Your task to perform on an android device: install app "LinkedIn" Image 0: 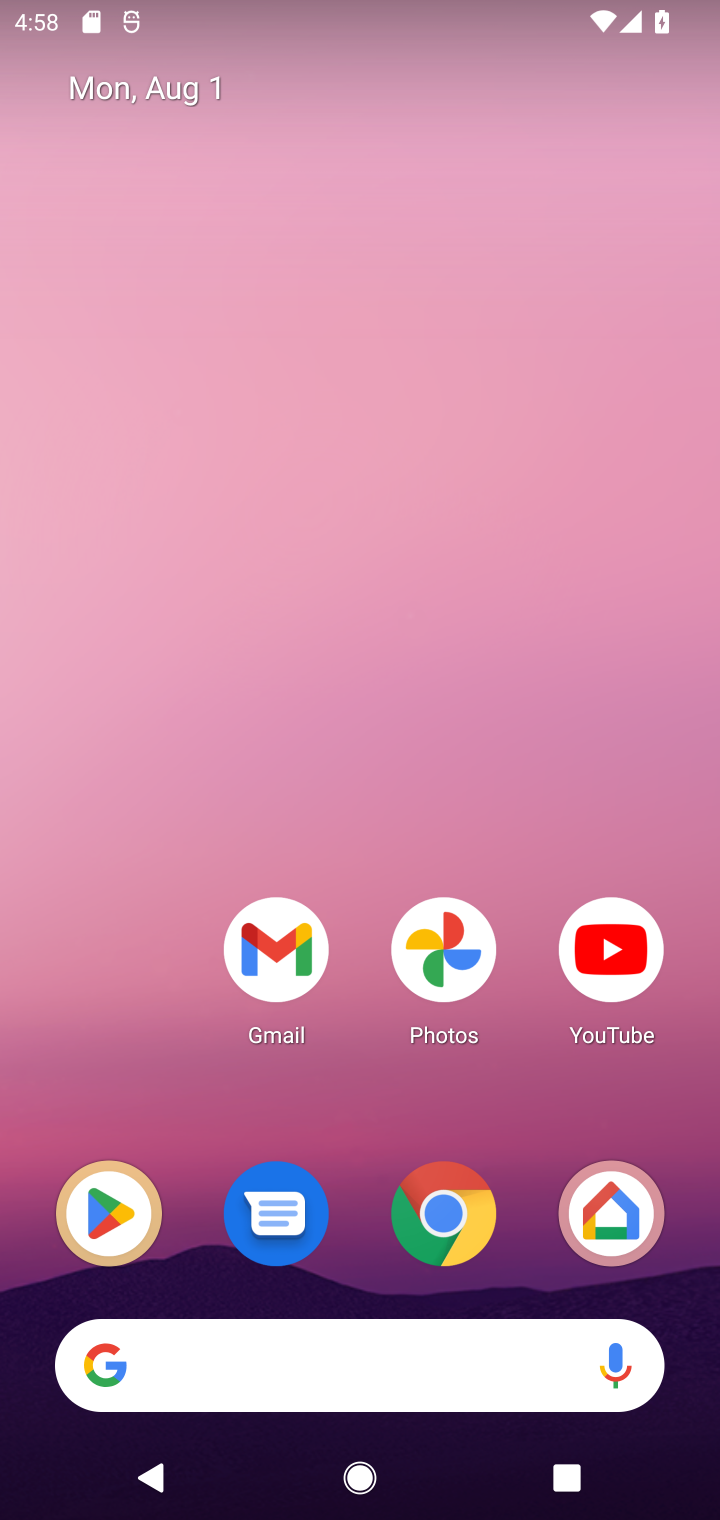
Step 0: drag from (507, 1096) to (351, 48)
Your task to perform on an android device: install app "LinkedIn" Image 1: 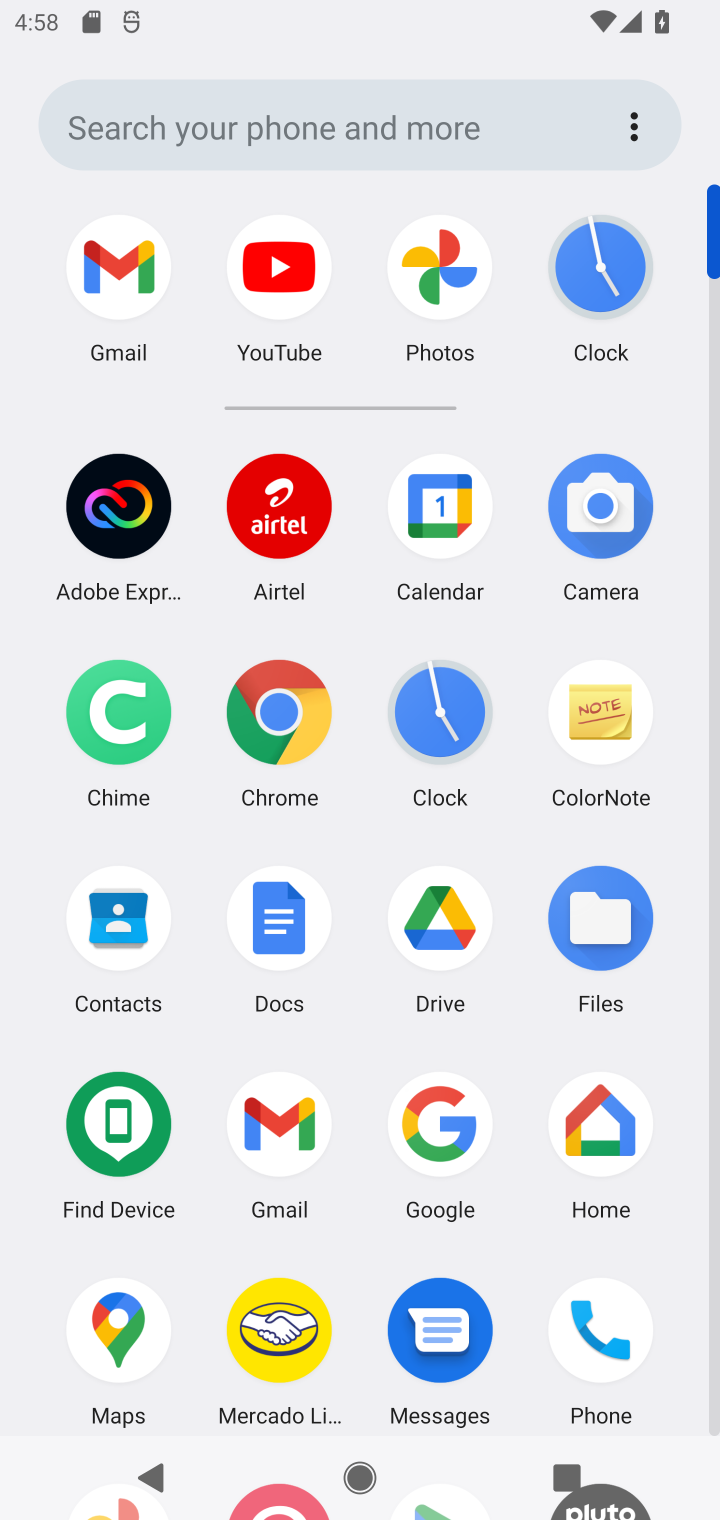
Step 1: drag from (516, 1255) to (504, 439)
Your task to perform on an android device: install app "LinkedIn" Image 2: 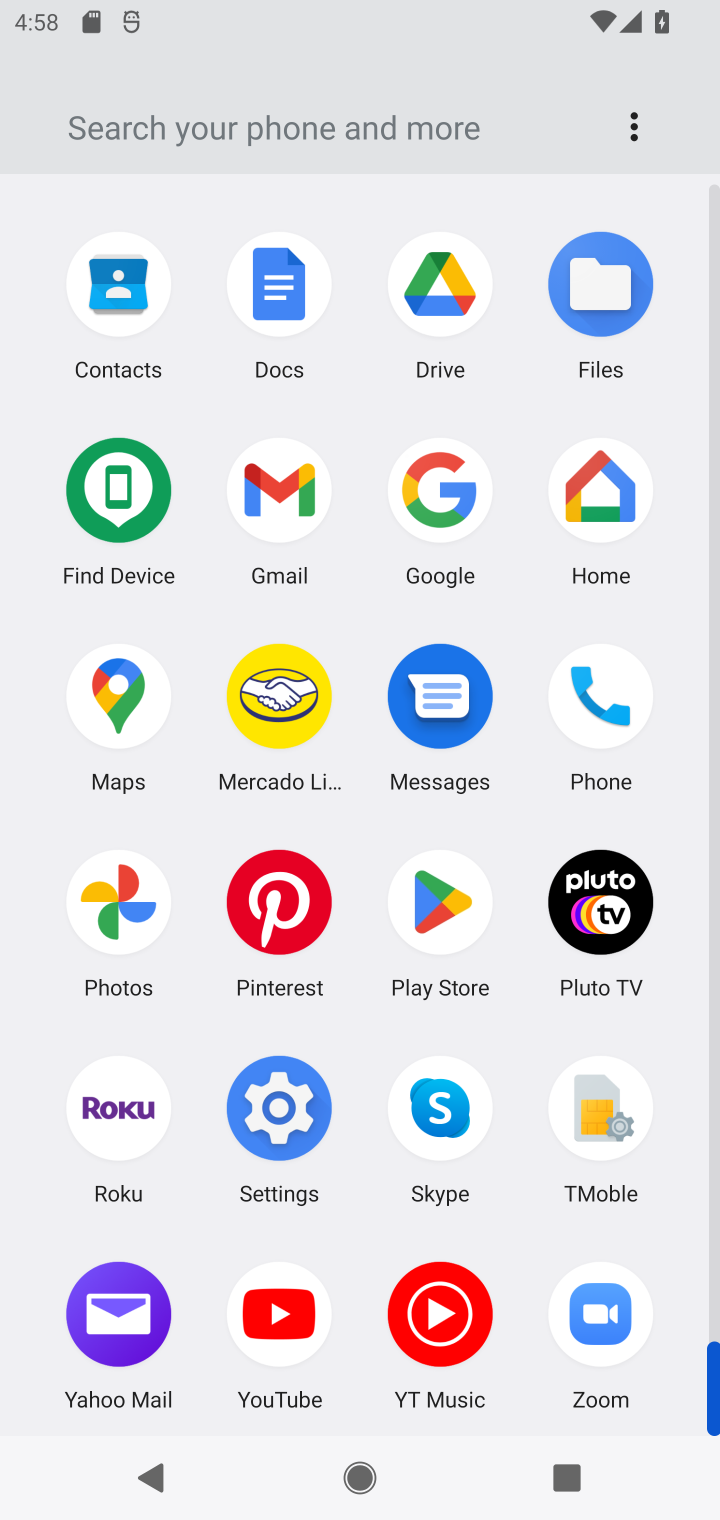
Step 2: click (439, 949)
Your task to perform on an android device: install app "LinkedIn" Image 3: 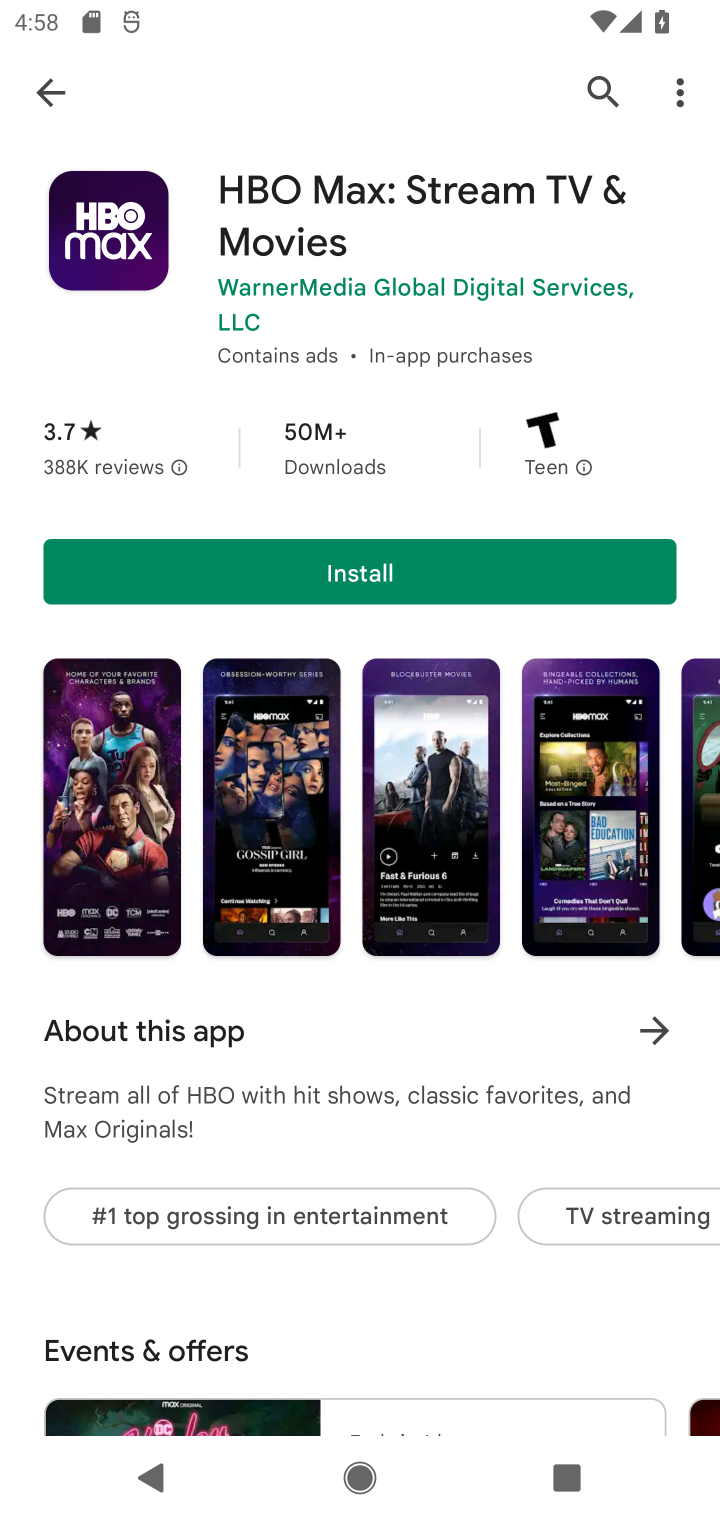
Step 3: click (595, 94)
Your task to perform on an android device: install app "LinkedIn" Image 4: 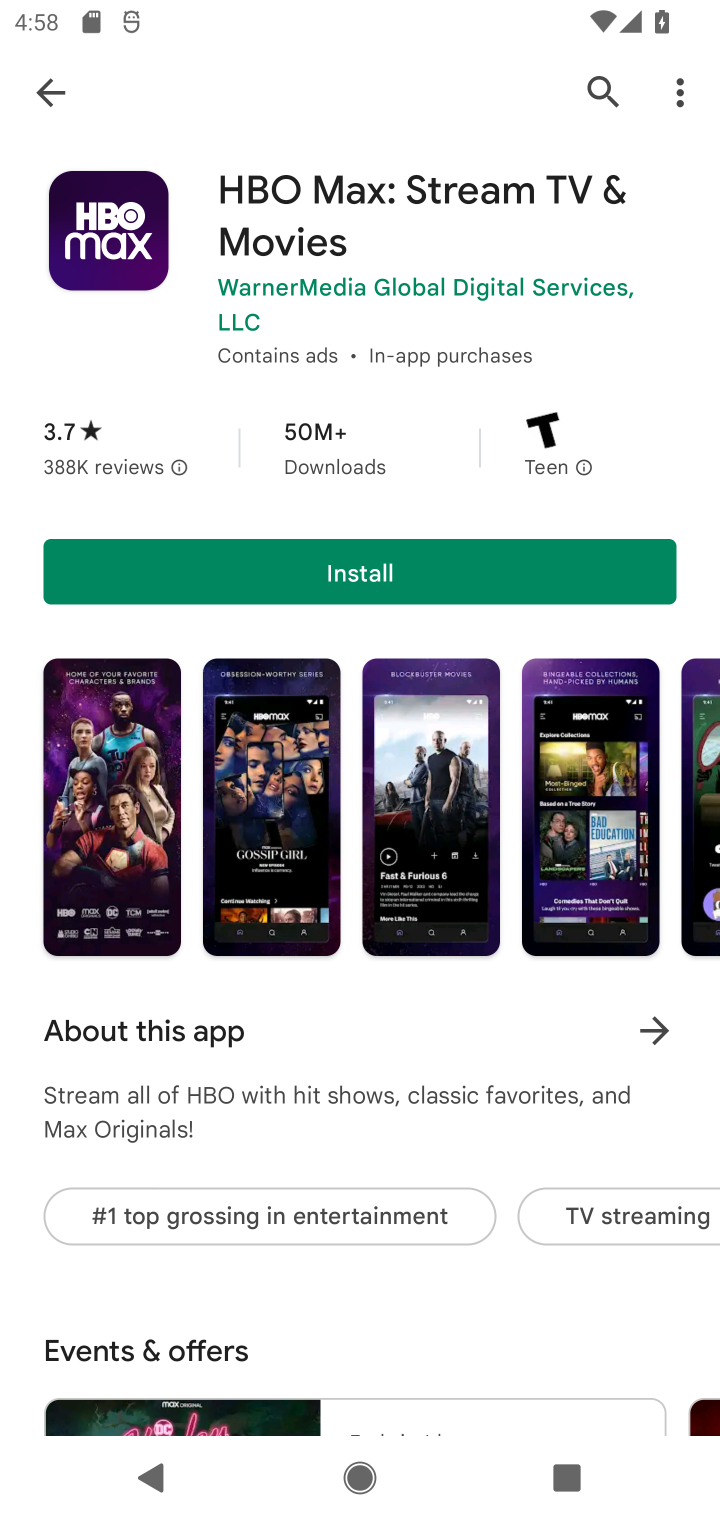
Step 4: click (619, 86)
Your task to perform on an android device: install app "LinkedIn" Image 5: 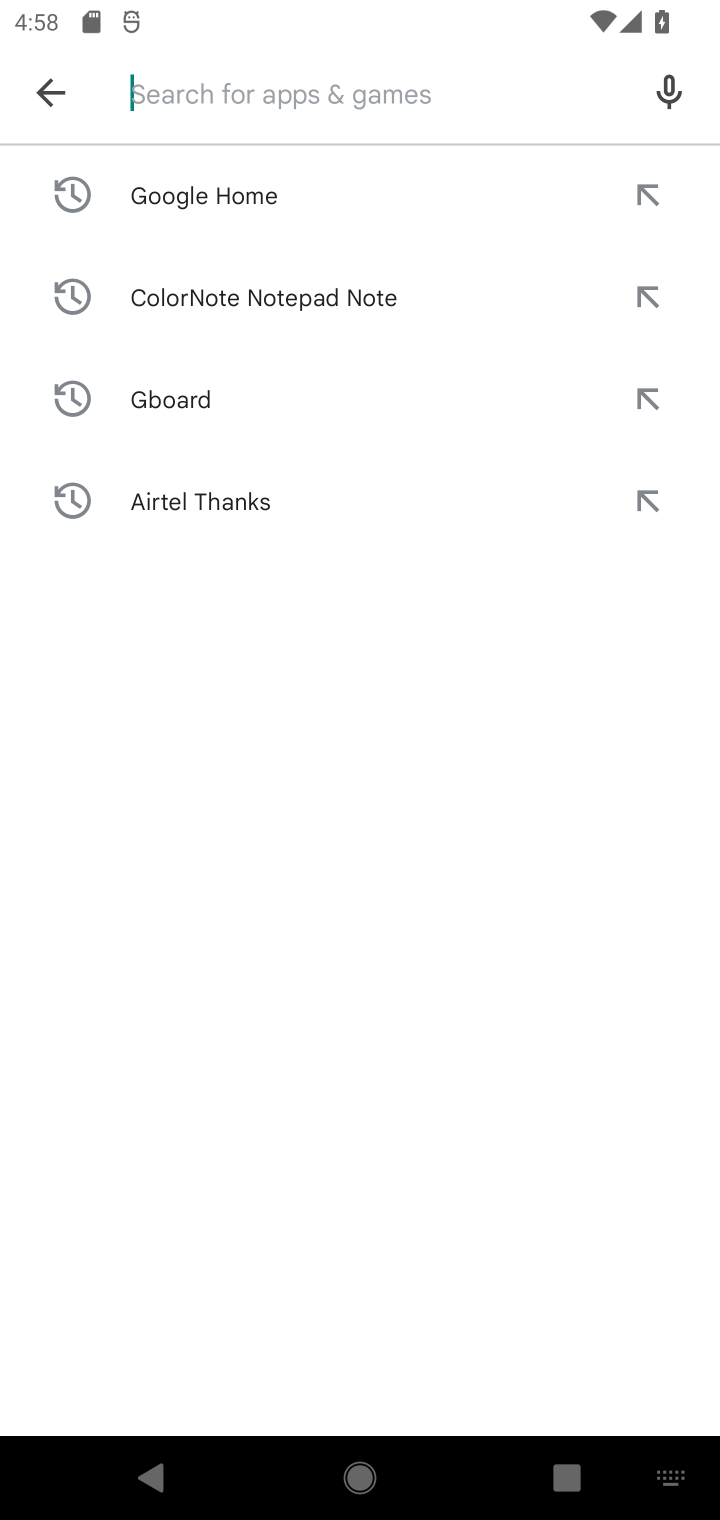
Step 5: type "Linkedln"
Your task to perform on an android device: install app "LinkedIn" Image 6: 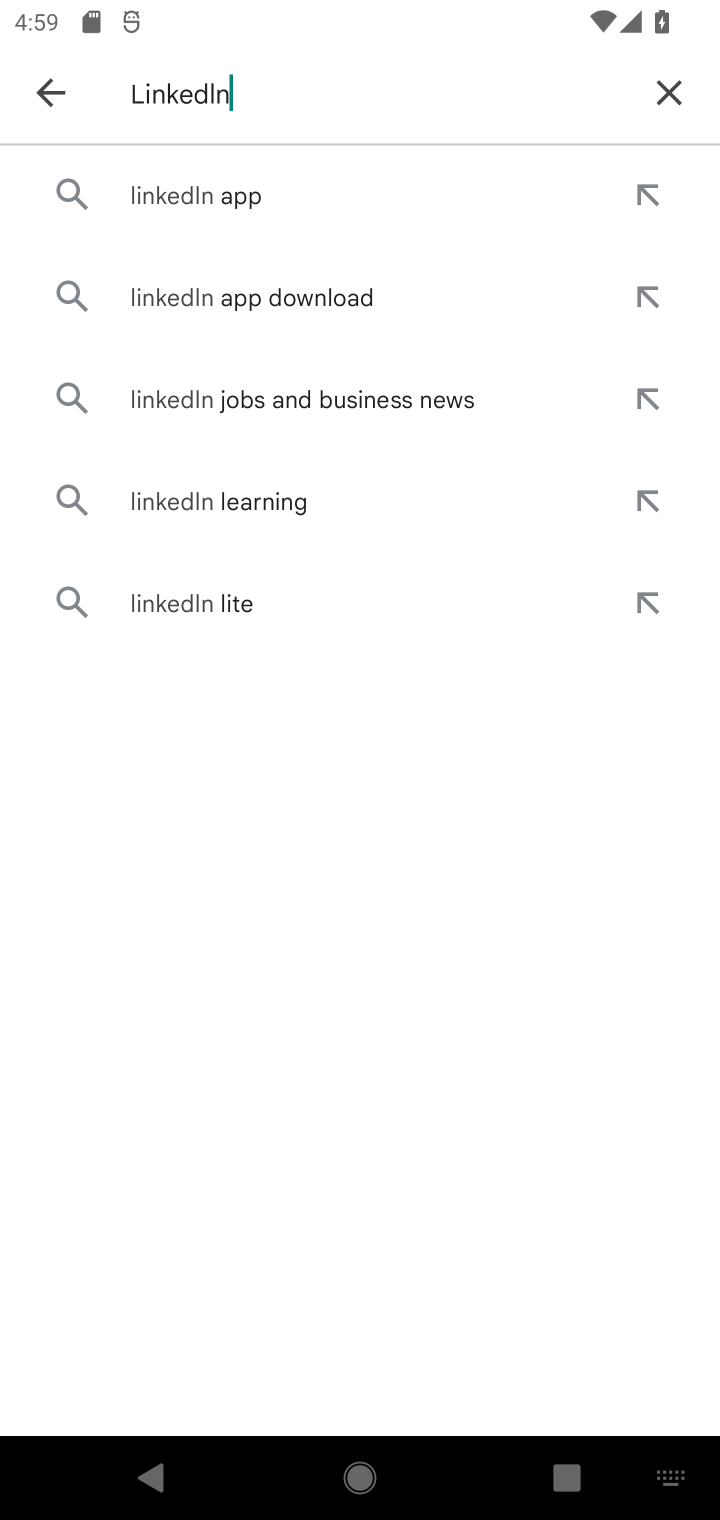
Step 6: press enter
Your task to perform on an android device: install app "LinkedIn" Image 7: 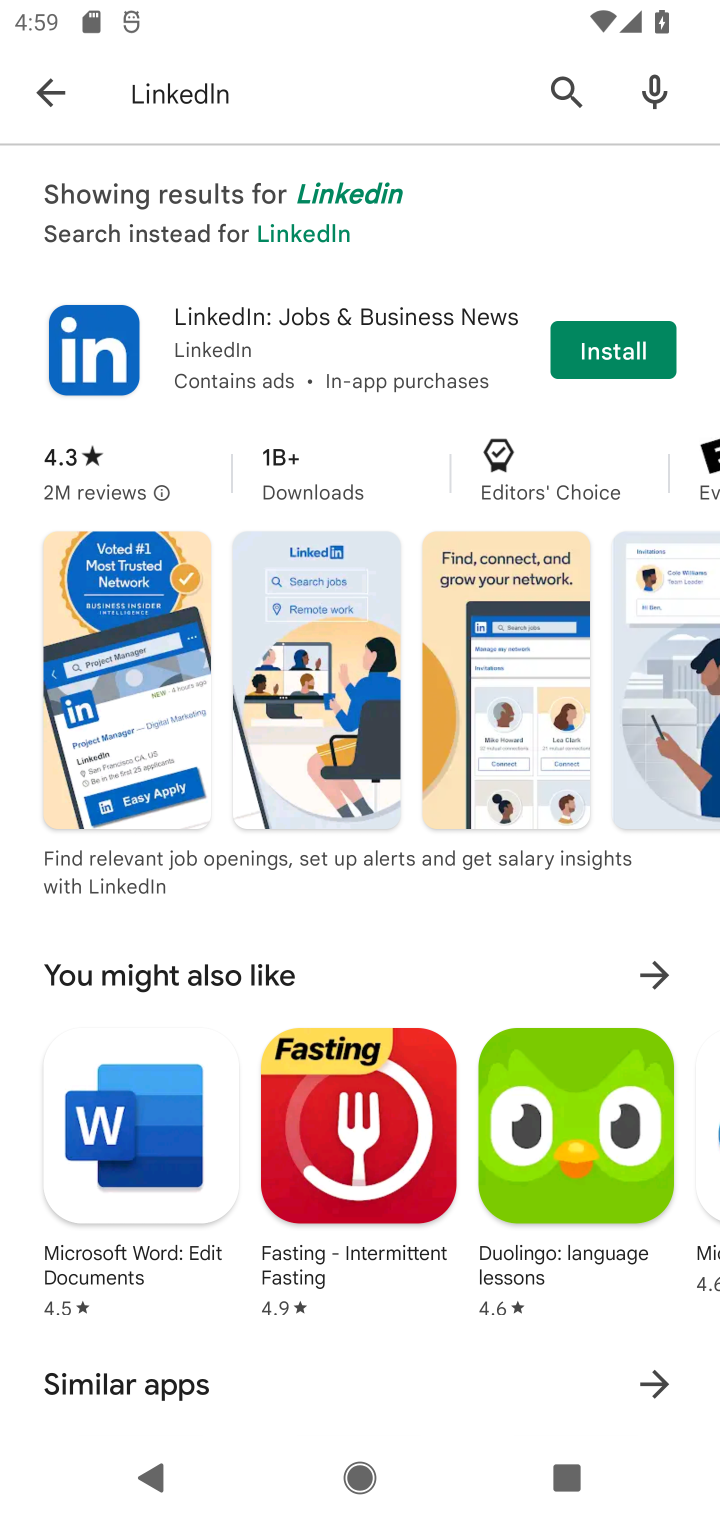
Step 7: click (605, 349)
Your task to perform on an android device: install app "LinkedIn" Image 8: 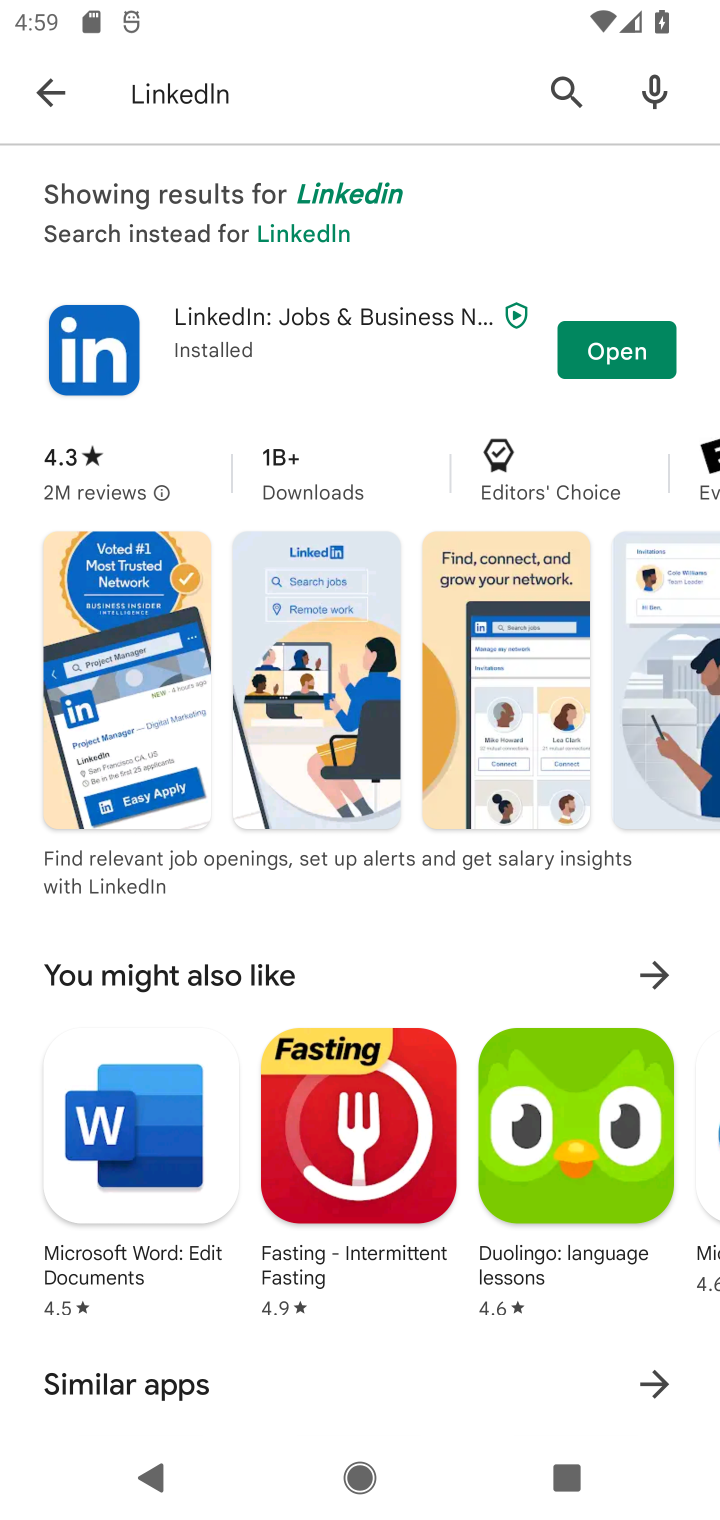
Step 8: task complete